Your task to perform on an android device: Open accessibility settings Image 0: 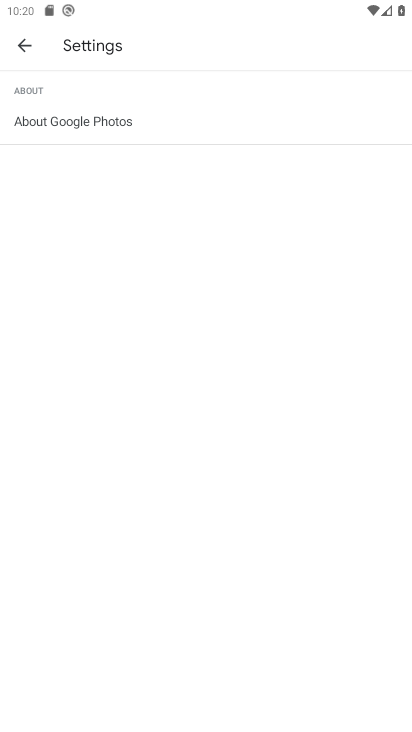
Step 0: press home button
Your task to perform on an android device: Open accessibility settings Image 1: 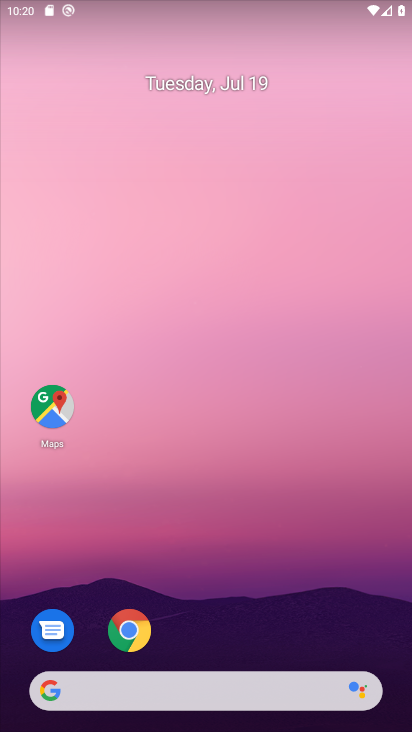
Step 1: drag from (248, 632) to (262, 195)
Your task to perform on an android device: Open accessibility settings Image 2: 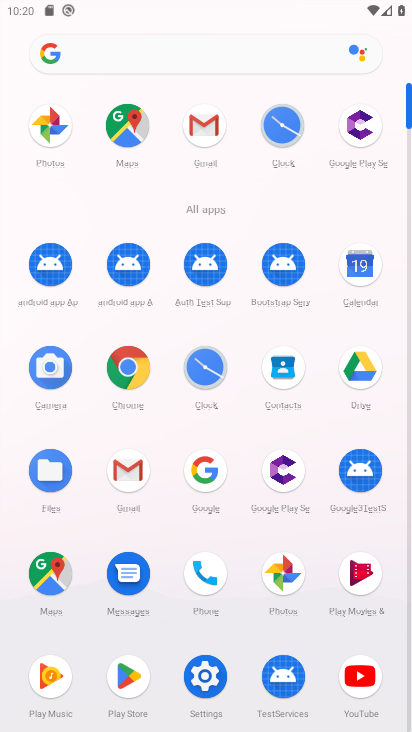
Step 2: click (201, 670)
Your task to perform on an android device: Open accessibility settings Image 3: 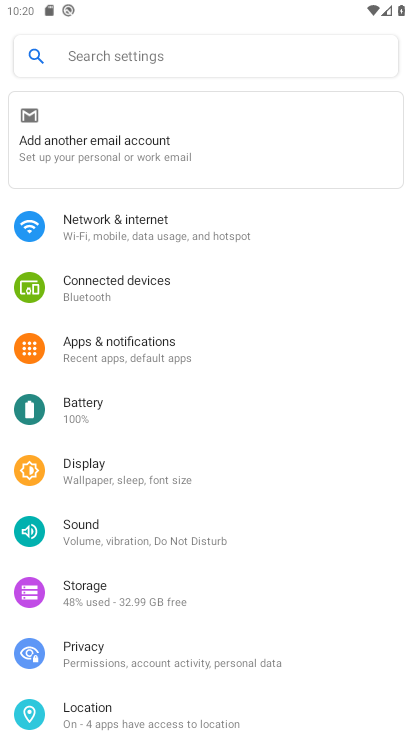
Step 3: drag from (194, 646) to (237, 337)
Your task to perform on an android device: Open accessibility settings Image 4: 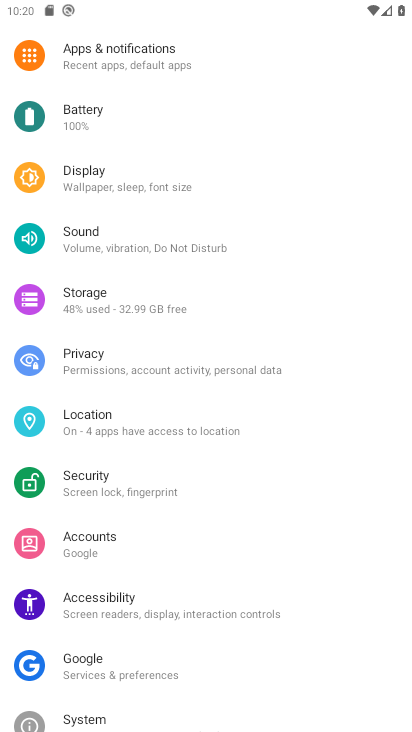
Step 4: click (129, 616)
Your task to perform on an android device: Open accessibility settings Image 5: 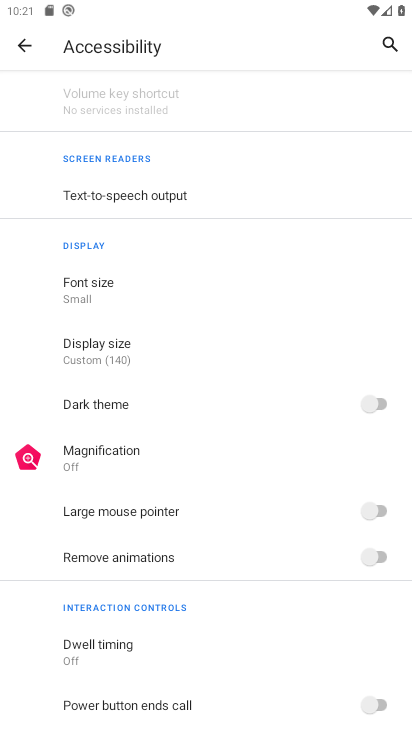
Step 5: task complete